Your task to perform on an android device: add a contact Image 0: 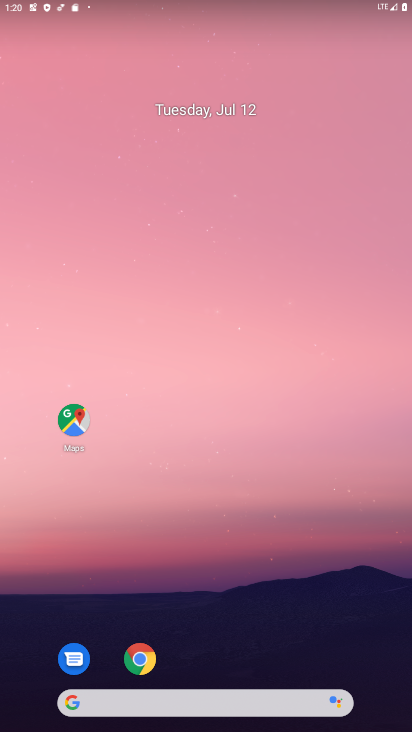
Step 0: drag from (231, 720) to (228, 235)
Your task to perform on an android device: add a contact Image 1: 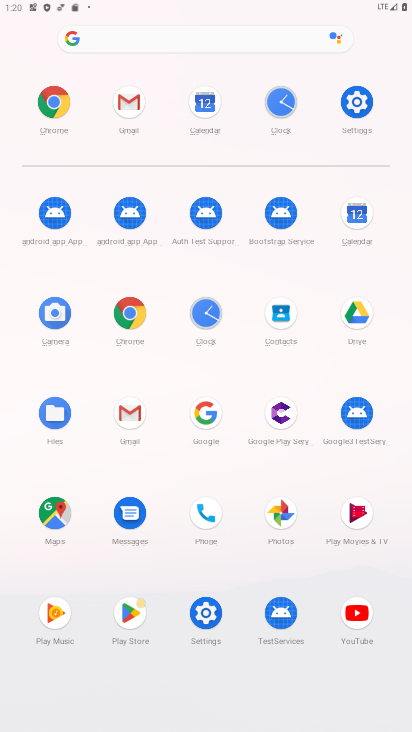
Step 1: click (284, 313)
Your task to perform on an android device: add a contact Image 2: 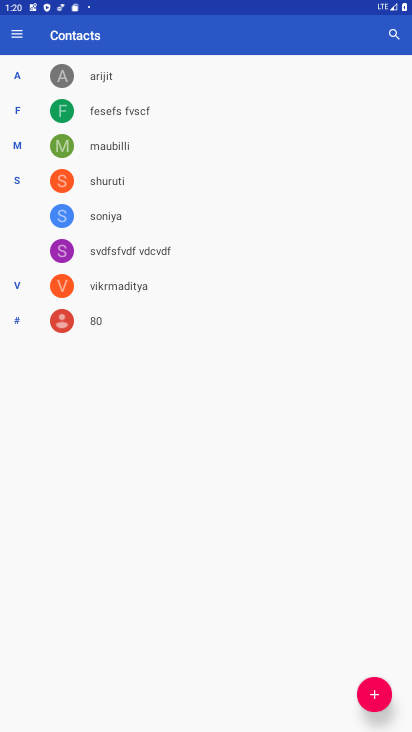
Step 2: click (376, 695)
Your task to perform on an android device: add a contact Image 3: 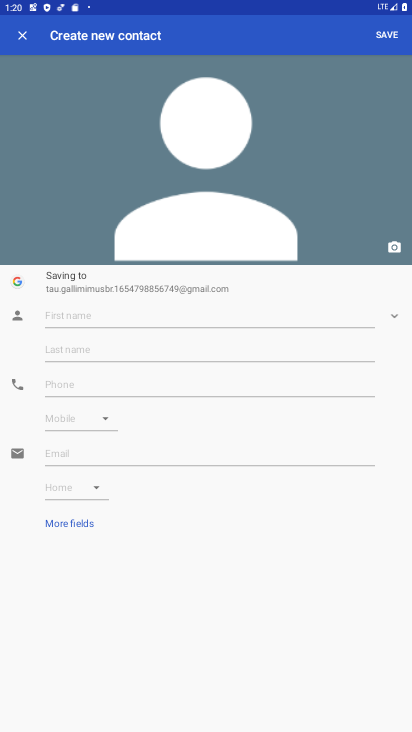
Step 3: click (189, 315)
Your task to perform on an android device: add a contact Image 4: 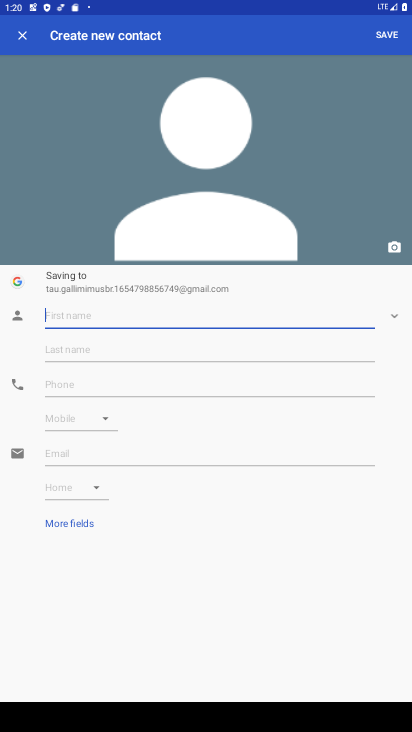
Step 4: type "chola"
Your task to perform on an android device: add a contact Image 5: 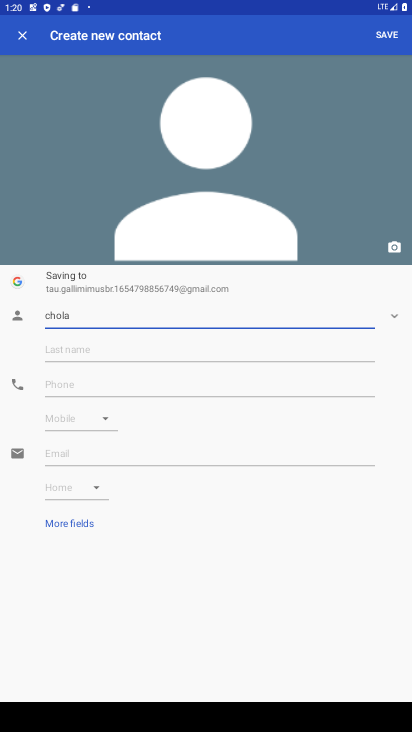
Step 5: click (92, 385)
Your task to perform on an android device: add a contact Image 6: 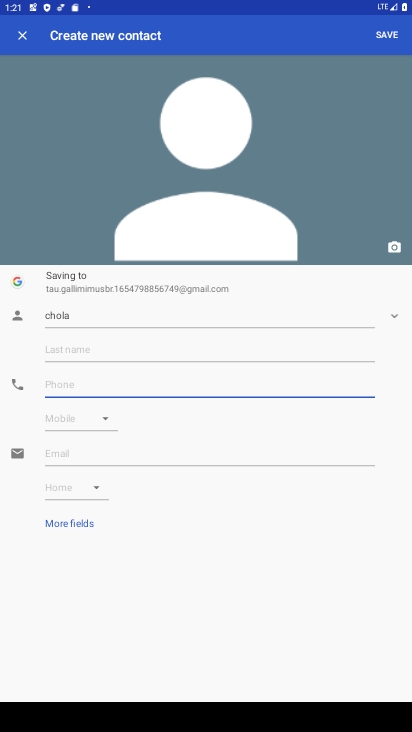
Step 6: type "56565"
Your task to perform on an android device: add a contact Image 7: 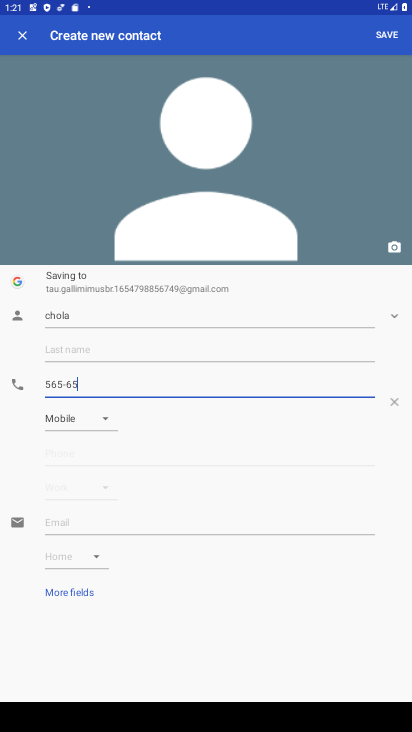
Step 7: type ""
Your task to perform on an android device: add a contact Image 8: 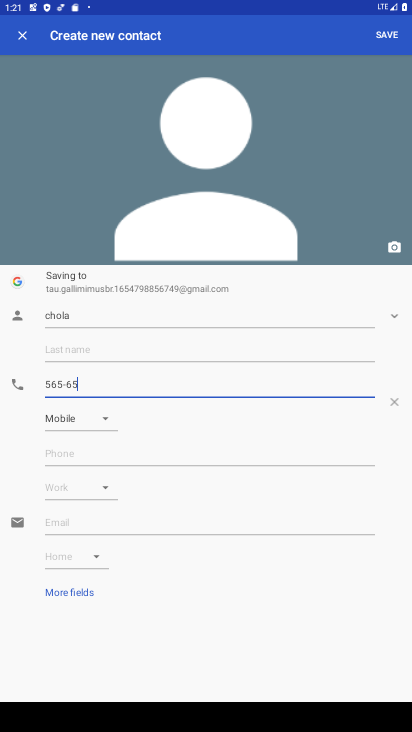
Step 8: click (391, 35)
Your task to perform on an android device: add a contact Image 9: 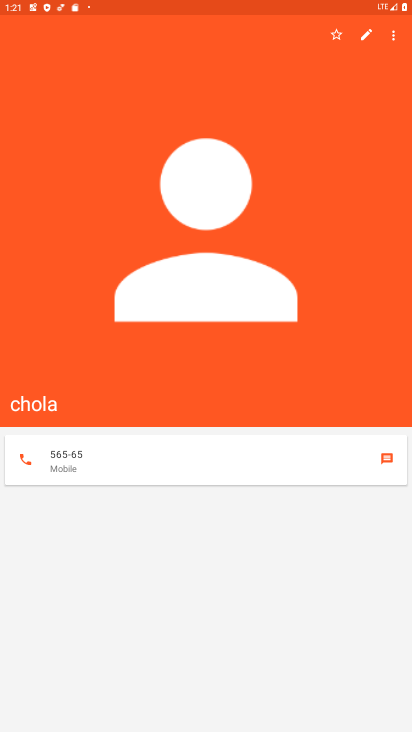
Step 9: task complete